Your task to perform on an android device: change your default location settings in chrome Image 0: 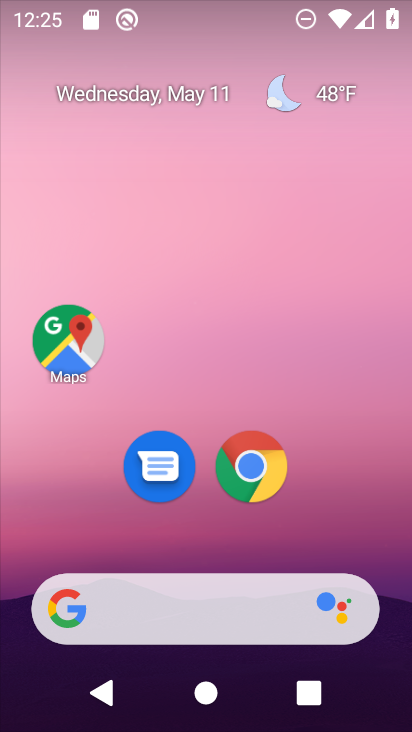
Step 0: drag from (206, 545) to (188, 125)
Your task to perform on an android device: change your default location settings in chrome Image 1: 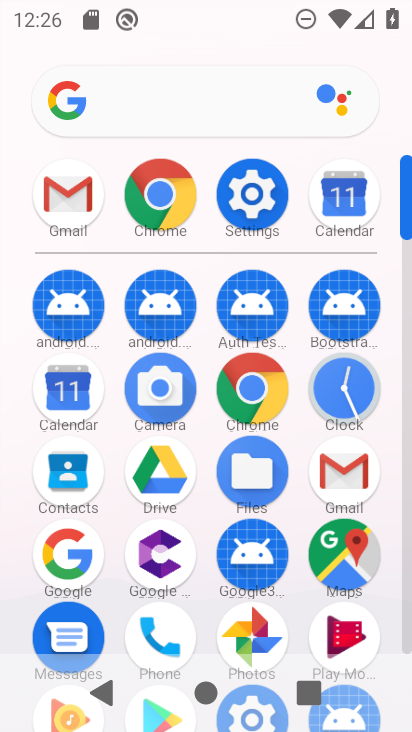
Step 1: click (158, 185)
Your task to perform on an android device: change your default location settings in chrome Image 2: 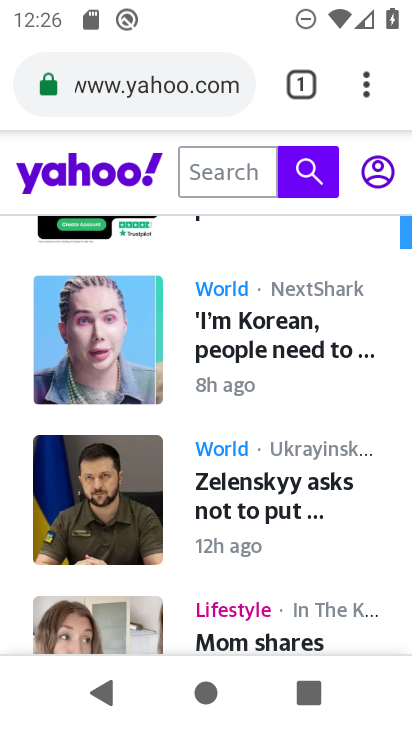
Step 2: press home button
Your task to perform on an android device: change your default location settings in chrome Image 3: 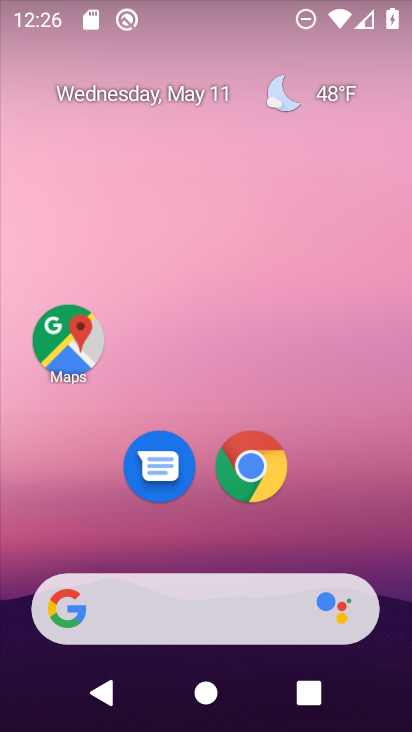
Step 3: click (251, 463)
Your task to perform on an android device: change your default location settings in chrome Image 4: 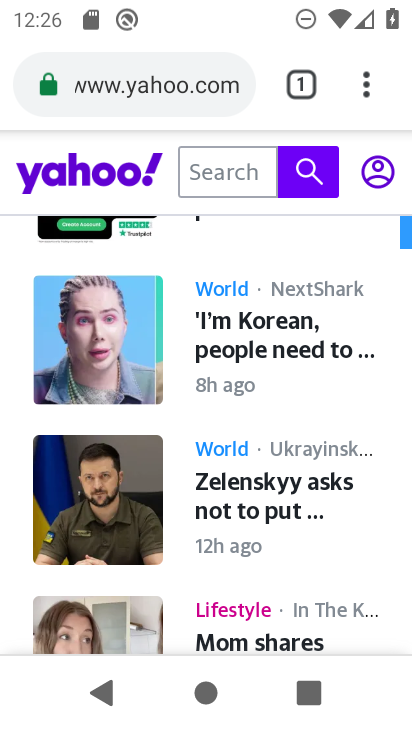
Step 4: drag from (175, 573) to (194, 331)
Your task to perform on an android device: change your default location settings in chrome Image 5: 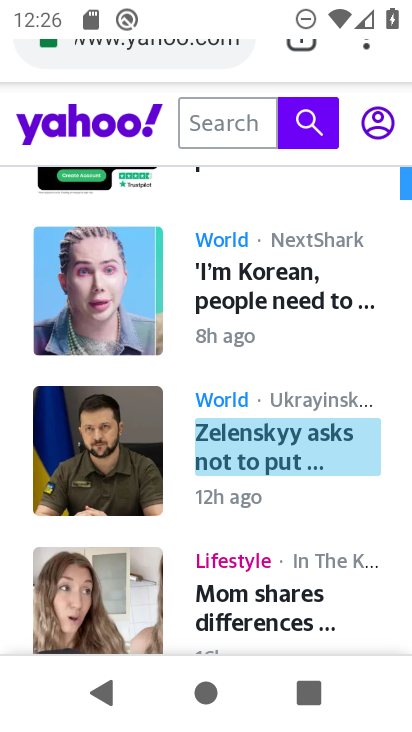
Step 5: click (201, 207)
Your task to perform on an android device: change your default location settings in chrome Image 6: 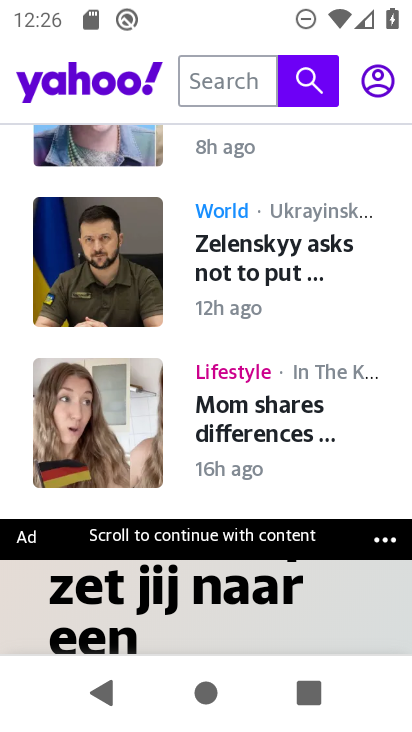
Step 6: task complete